Your task to perform on an android device: Open privacy settings Image 0: 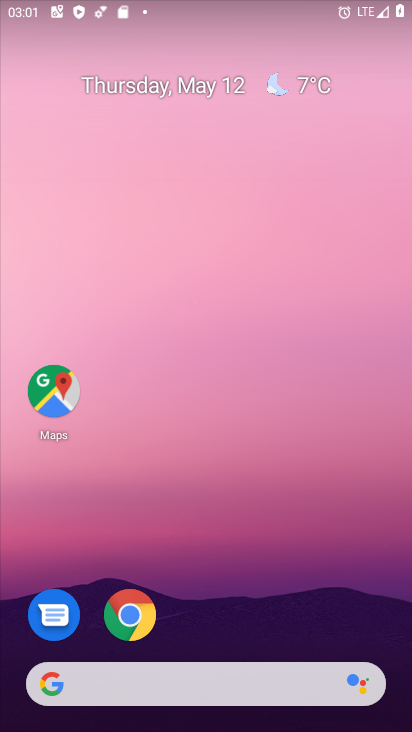
Step 0: drag from (166, 672) to (186, 36)
Your task to perform on an android device: Open privacy settings Image 1: 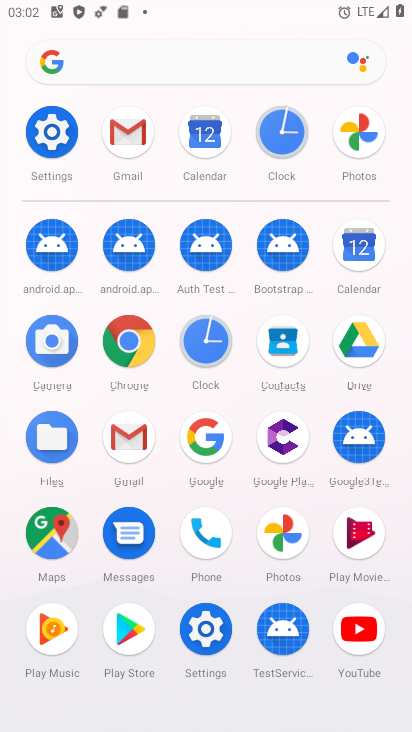
Step 1: click (36, 130)
Your task to perform on an android device: Open privacy settings Image 2: 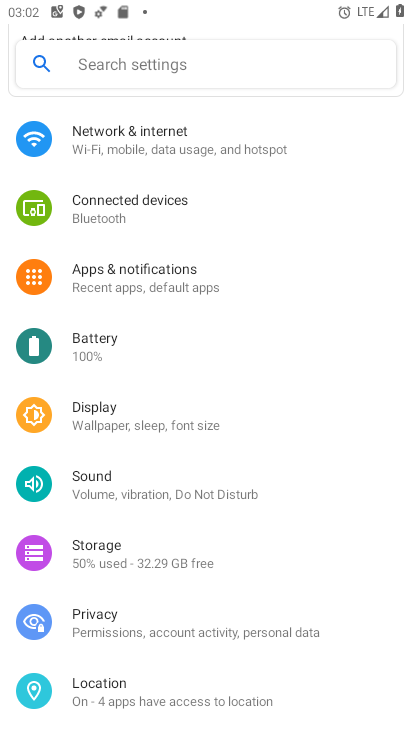
Step 2: click (133, 620)
Your task to perform on an android device: Open privacy settings Image 3: 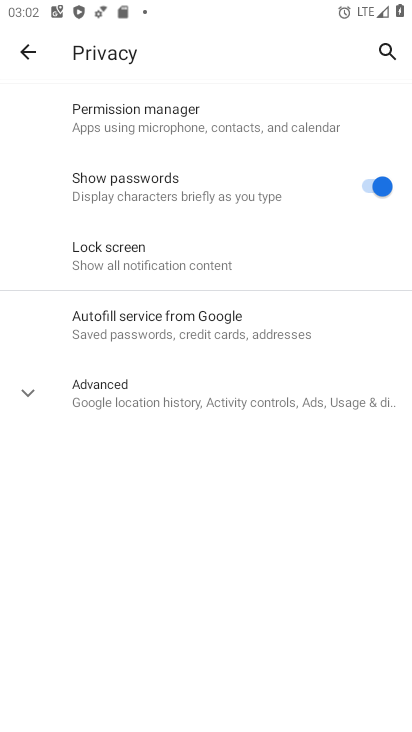
Step 3: task complete